Your task to perform on an android device: choose inbox layout in the gmail app Image 0: 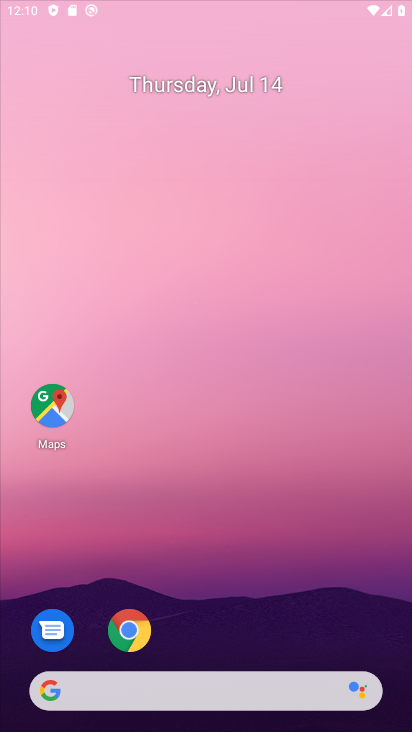
Step 0: drag from (266, 455) to (296, 94)
Your task to perform on an android device: choose inbox layout in the gmail app Image 1: 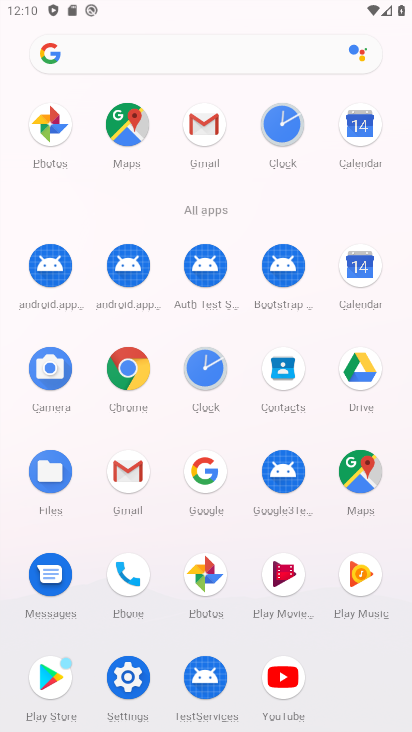
Step 1: click (208, 127)
Your task to perform on an android device: choose inbox layout in the gmail app Image 2: 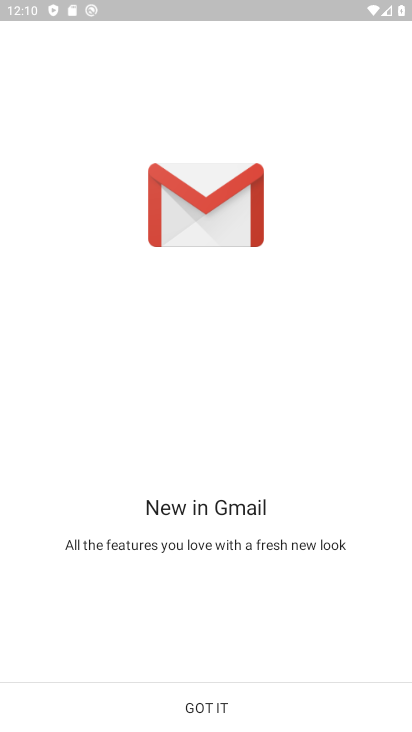
Step 2: click (165, 712)
Your task to perform on an android device: choose inbox layout in the gmail app Image 3: 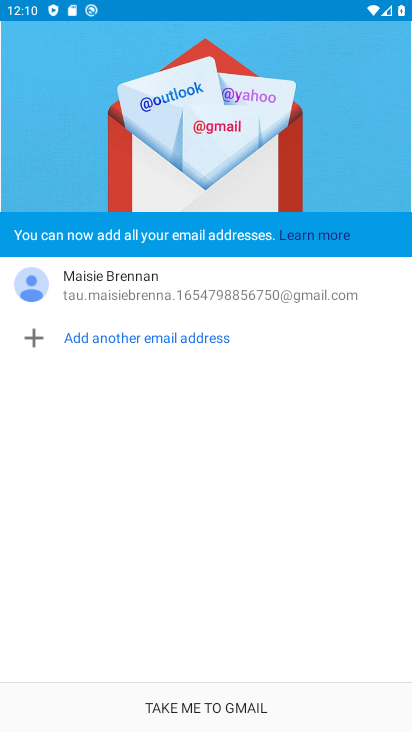
Step 3: click (165, 712)
Your task to perform on an android device: choose inbox layout in the gmail app Image 4: 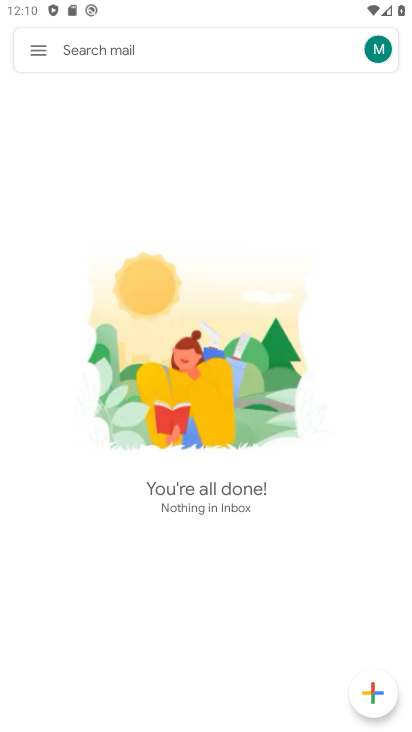
Step 4: click (34, 50)
Your task to perform on an android device: choose inbox layout in the gmail app Image 5: 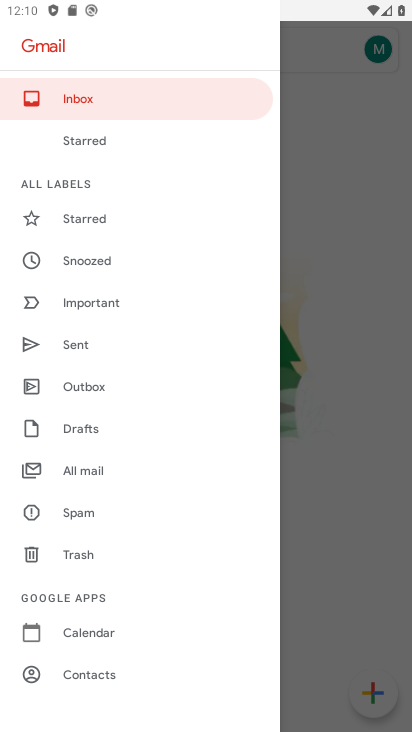
Step 5: drag from (79, 649) to (120, 300)
Your task to perform on an android device: choose inbox layout in the gmail app Image 6: 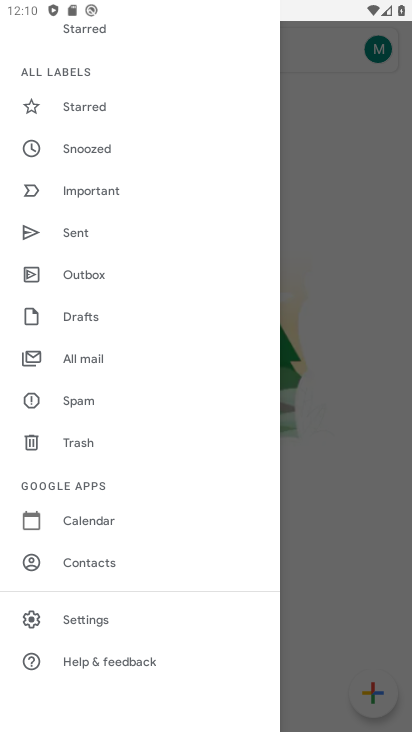
Step 6: click (56, 617)
Your task to perform on an android device: choose inbox layout in the gmail app Image 7: 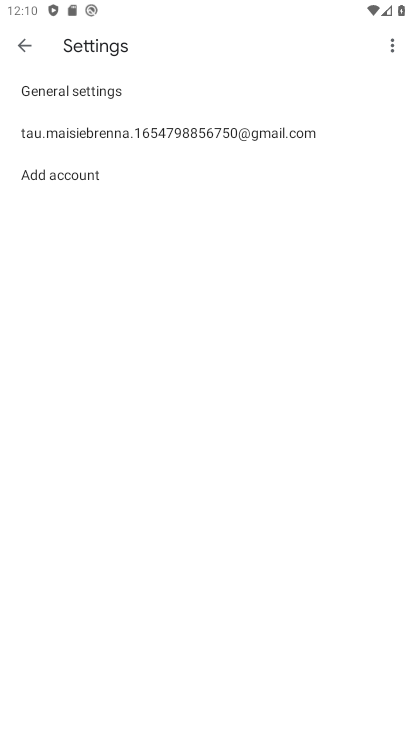
Step 7: click (77, 128)
Your task to perform on an android device: choose inbox layout in the gmail app Image 8: 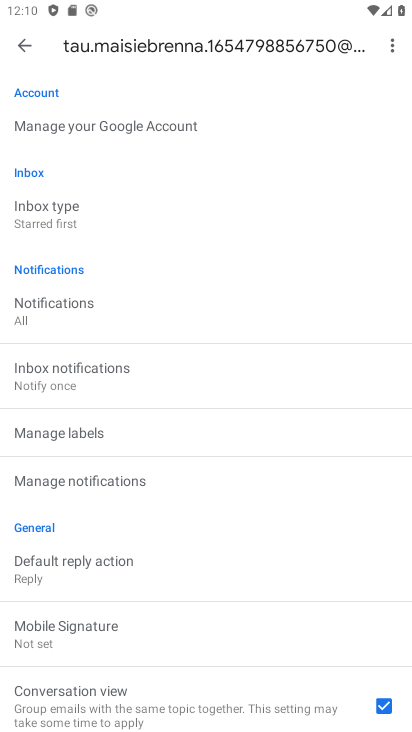
Step 8: drag from (67, 678) to (105, 258)
Your task to perform on an android device: choose inbox layout in the gmail app Image 9: 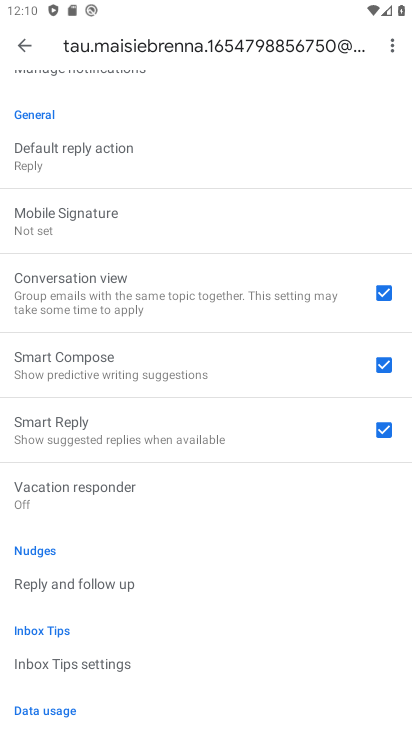
Step 9: drag from (99, 150) to (80, 638)
Your task to perform on an android device: choose inbox layout in the gmail app Image 10: 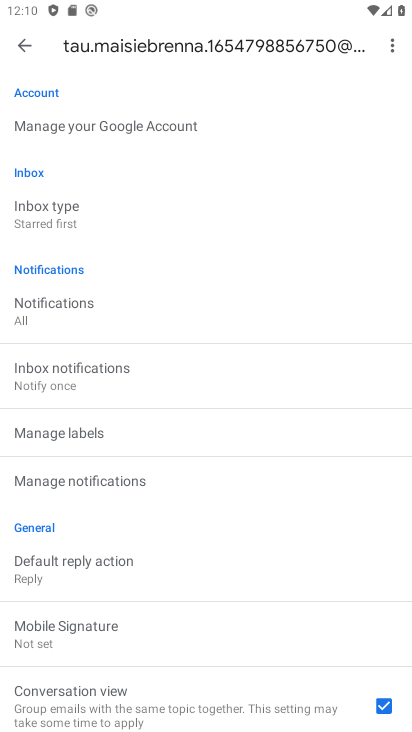
Step 10: click (30, 216)
Your task to perform on an android device: choose inbox layout in the gmail app Image 11: 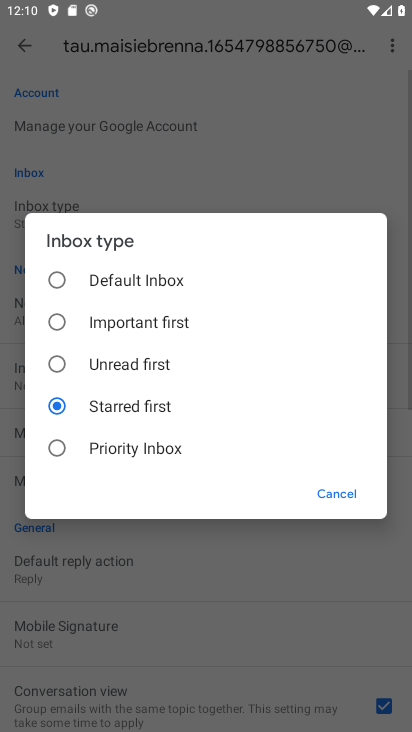
Step 11: click (109, 444)
Your task to perform on an android device: choose inbox layout in the gmail app Image 12: 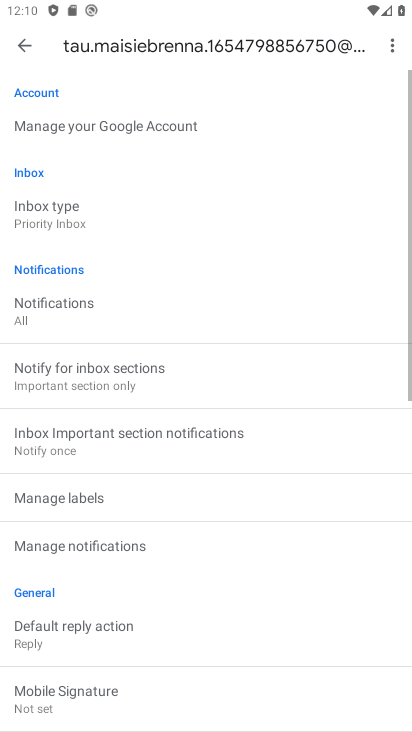
Step 12: task complete